Your task to perform on an android device: Add macbook to the cart on newegg.com Image 0: 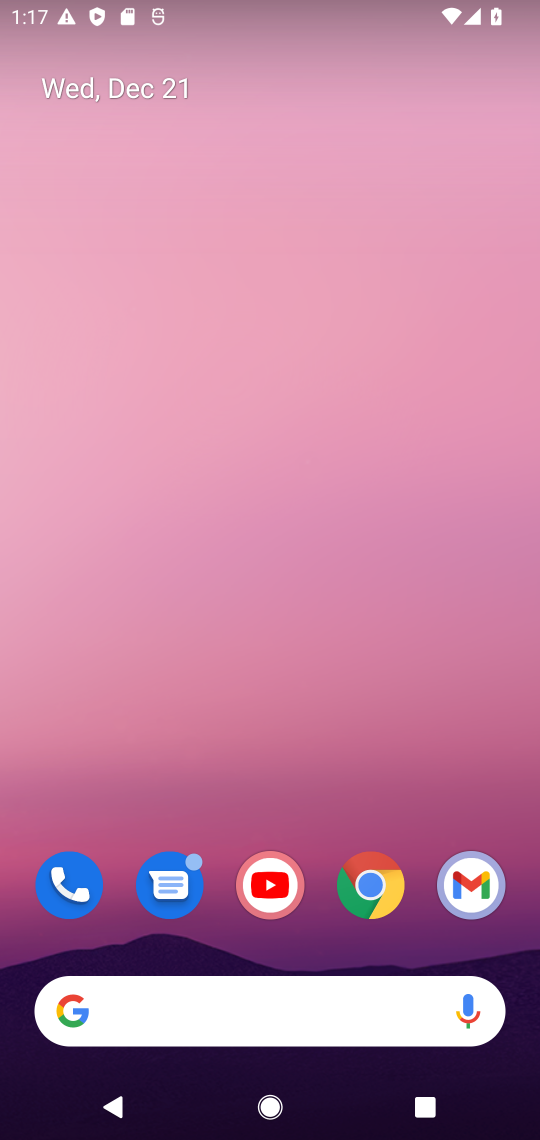
Step 0: drag from (283, 1005) to (286, 157)
Your task to perform on an android device: Add macbook to the cart on newegg.com Image 1: 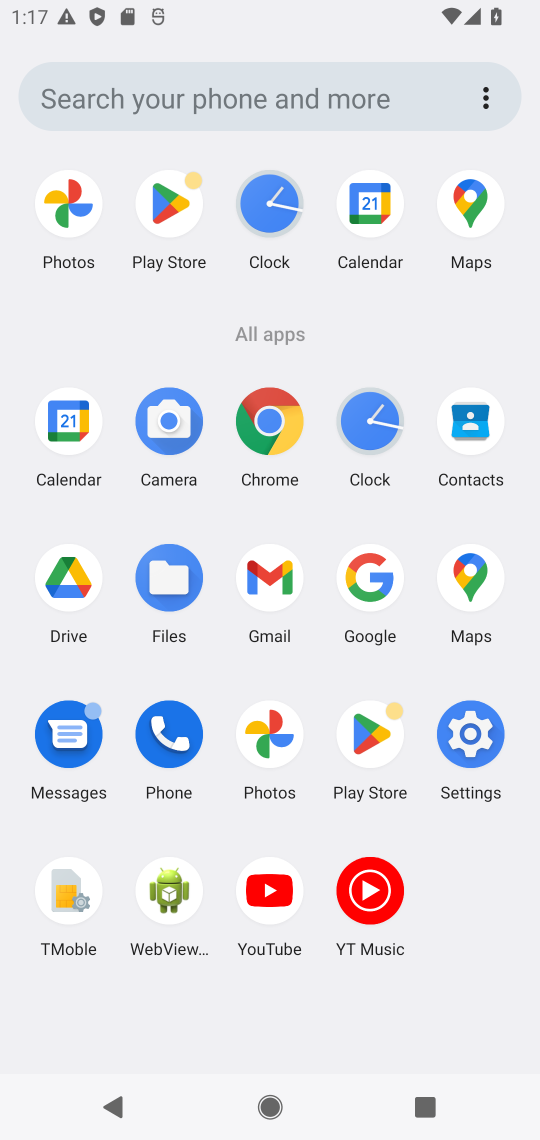
Step 1: click (356, 570)
Your task to perform on an android device: Add macbook to the cart on newegg.com Image 2: 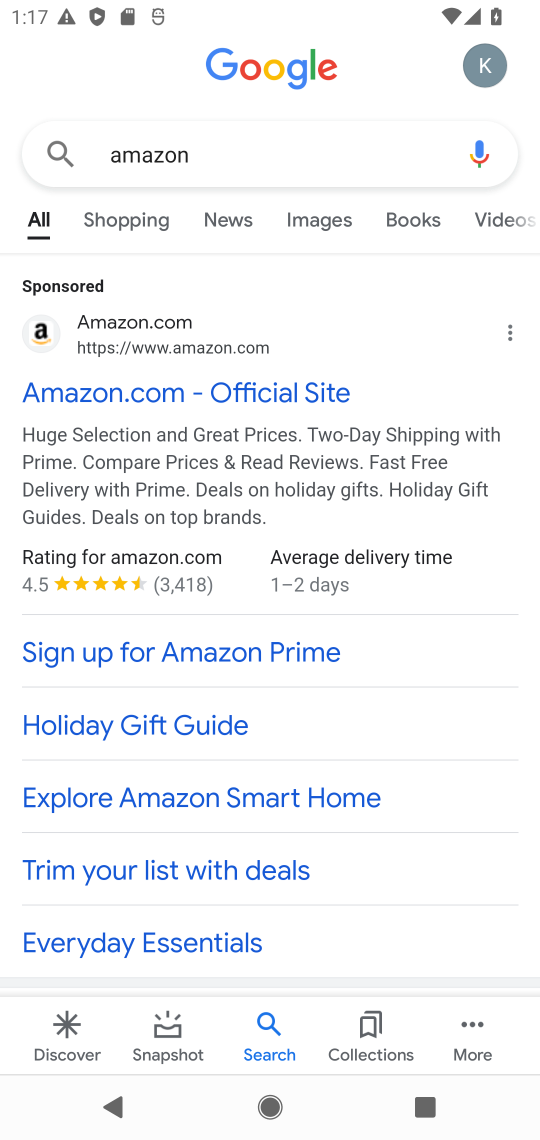
Step 2: click (181, 165)
Your task to perform on an android device: Add macbook to the cart on newegg.com Image 3: 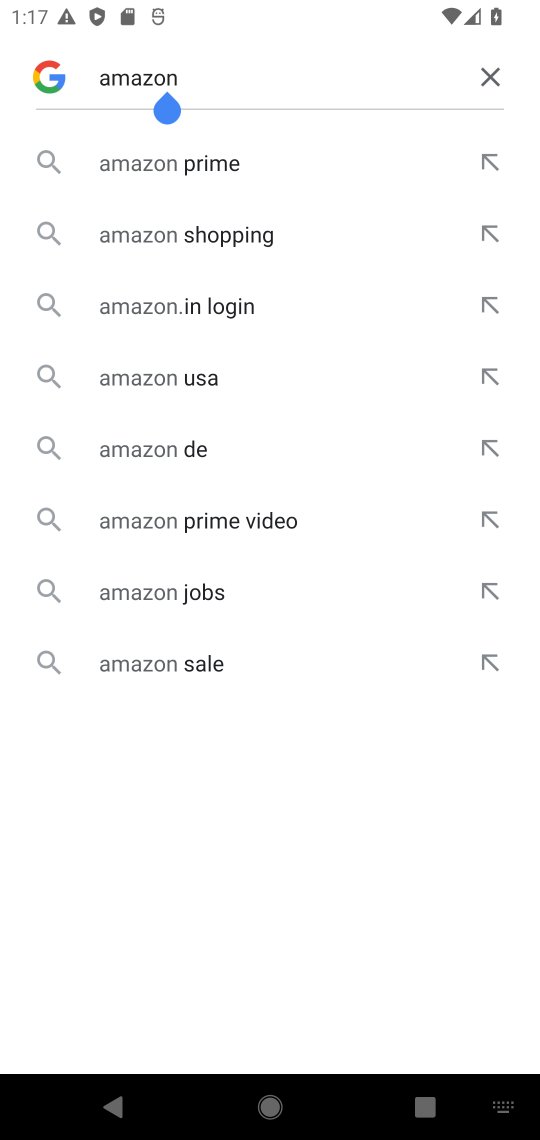
Step 3: click (492, 75)
Your task to perform on an android device: Add macbook to the cart on newegg.com Image 4: 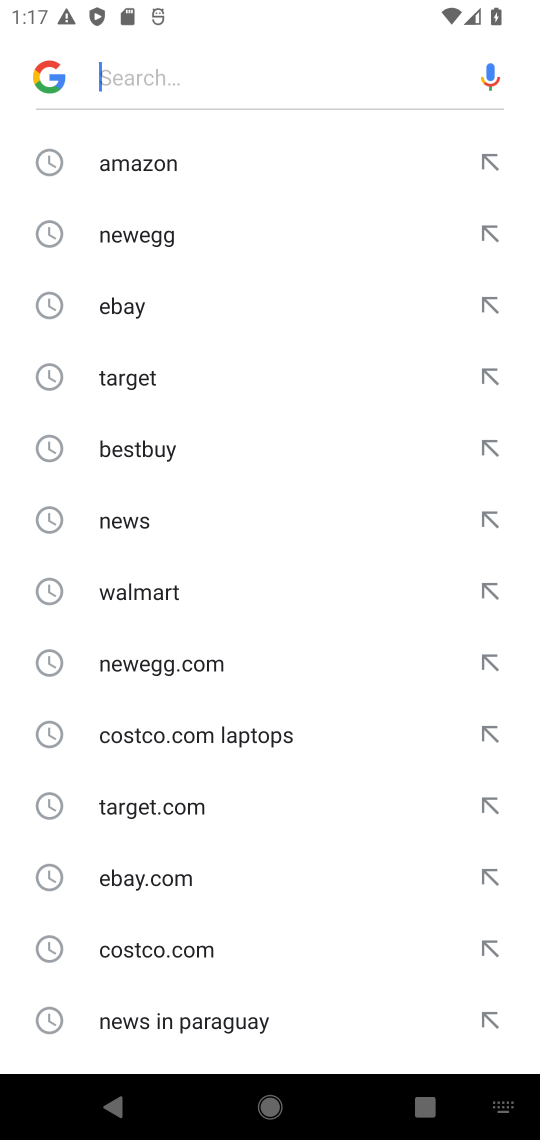
Step 4: click (145, 232)
Your task to perform on an android device: Add macbook to the cart on newegg.com Image 5: 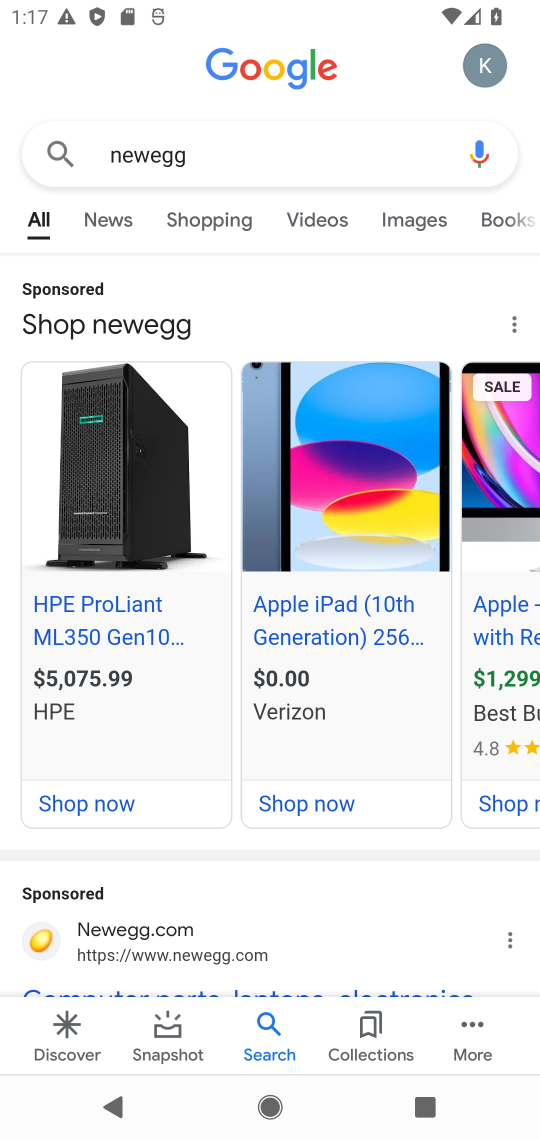
Step 5: drag from (229, 904) to (219, 265)
Your task to perform on an android device: Add macbook to the cart on newegg.com Image 6: 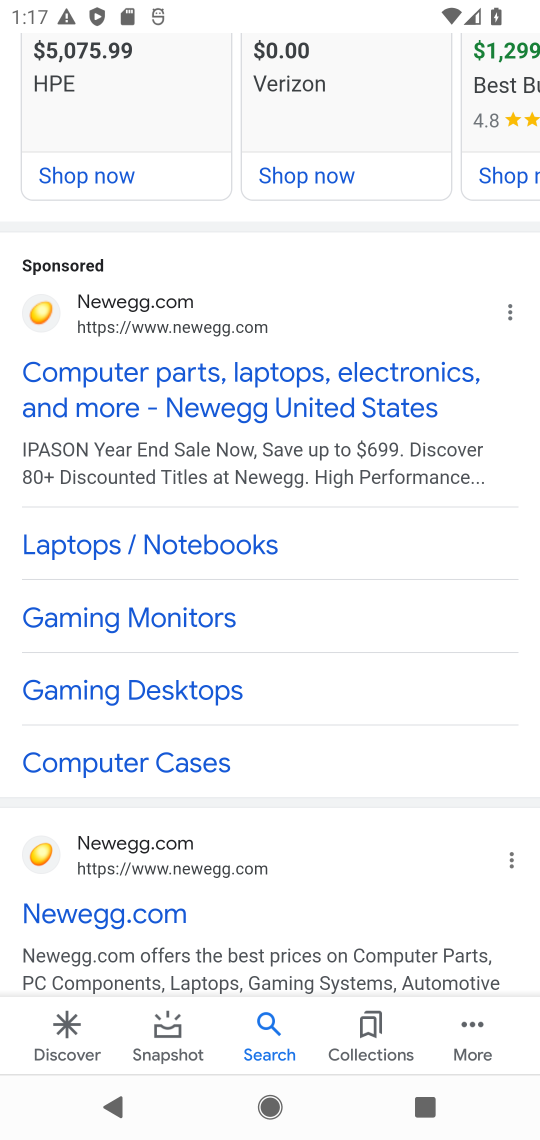
Step 6: drag from (237, 906) to (219, 367)
Your task to perform on an android device: Add macbook to the cart on newegg.com Image 7: 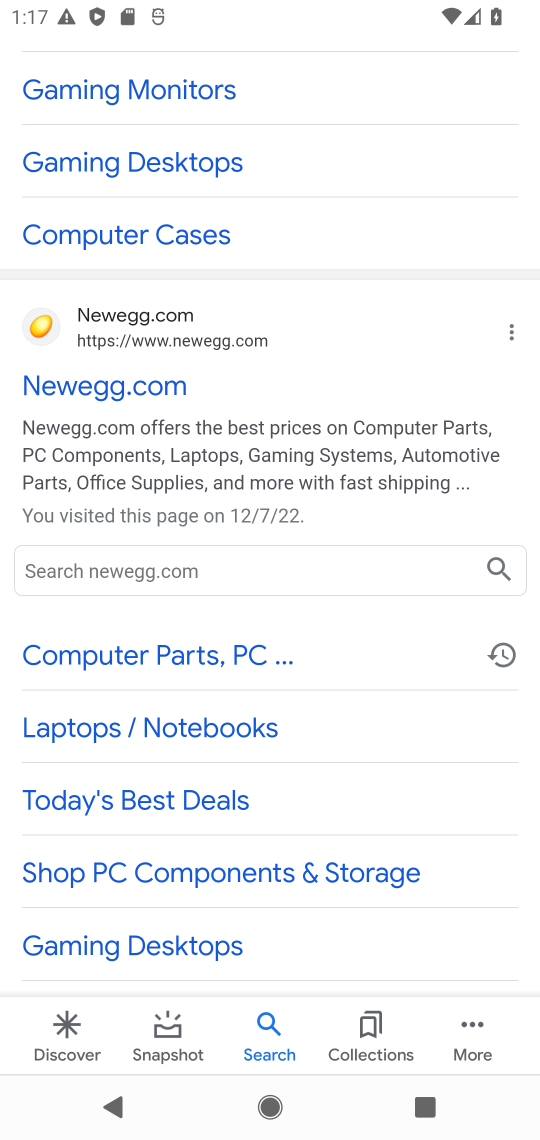
Step 7: click (64, 389)
Your task to perform on an android device: Add macbook to the cart on newegg.com Image 8: 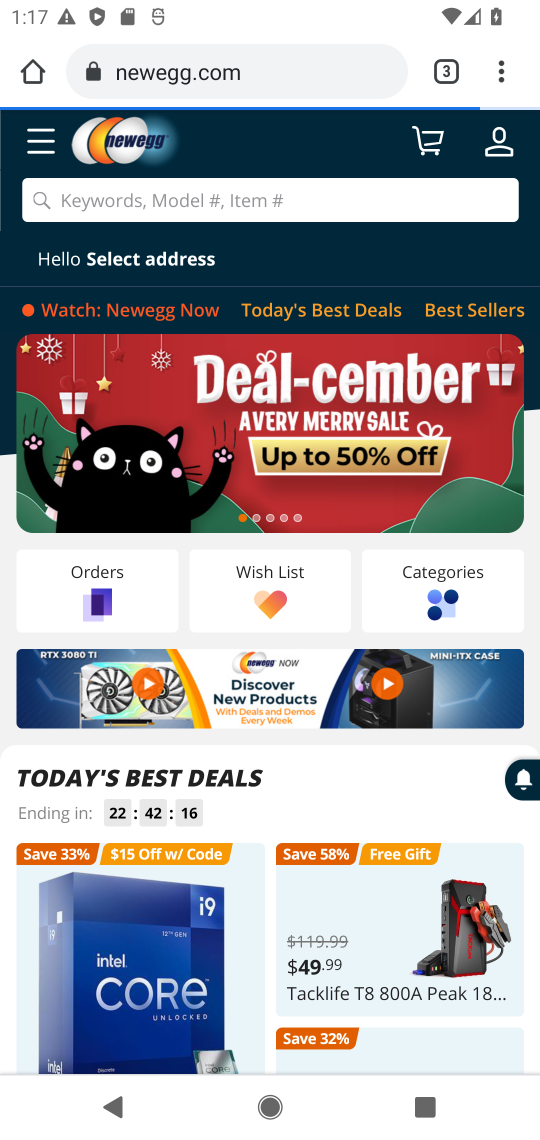
Step 8: click (215, 200)
Your task to perform on an android device: Add macbook to the cart on newegg.com Image 9: 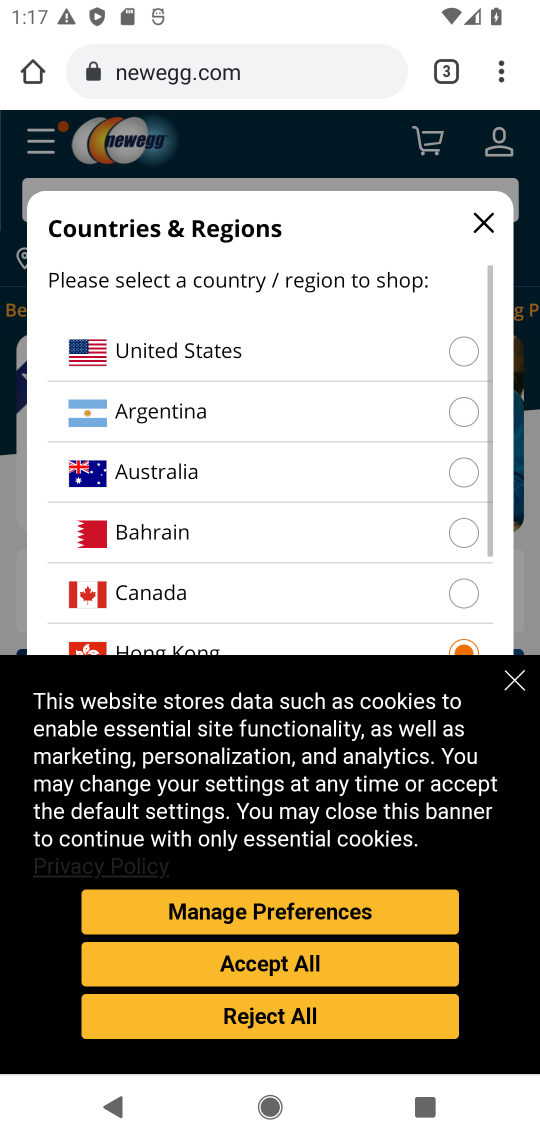
Step 9: click (482, 227)
Your task to perform on an android device: Add macbook to the cart on newegg.com Image 10: 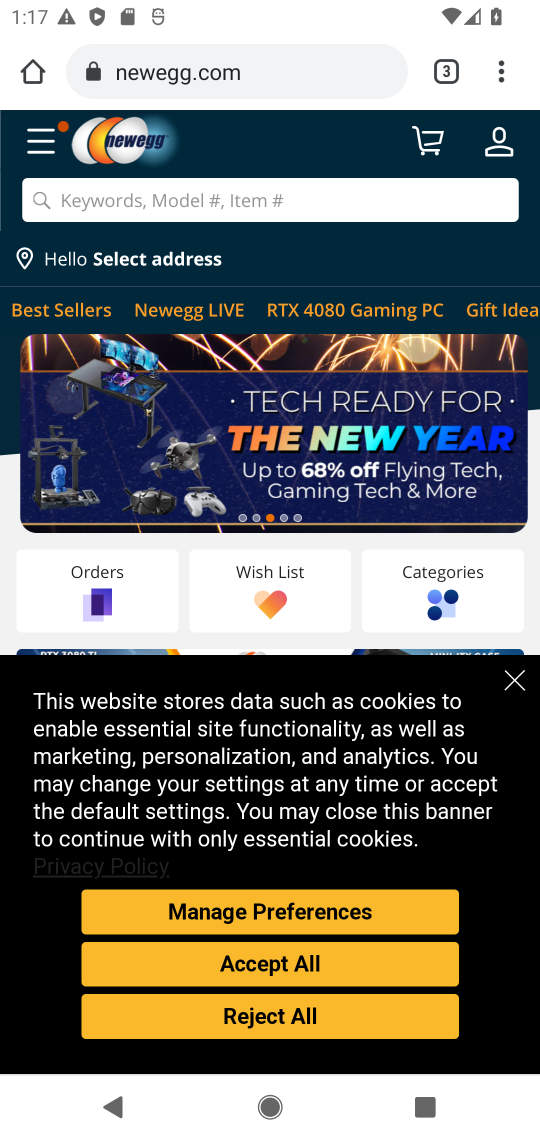
Step 10: click (103, 197)
Your task to perform on an android device: Add macbook to the cart on newegg.com Image 11: 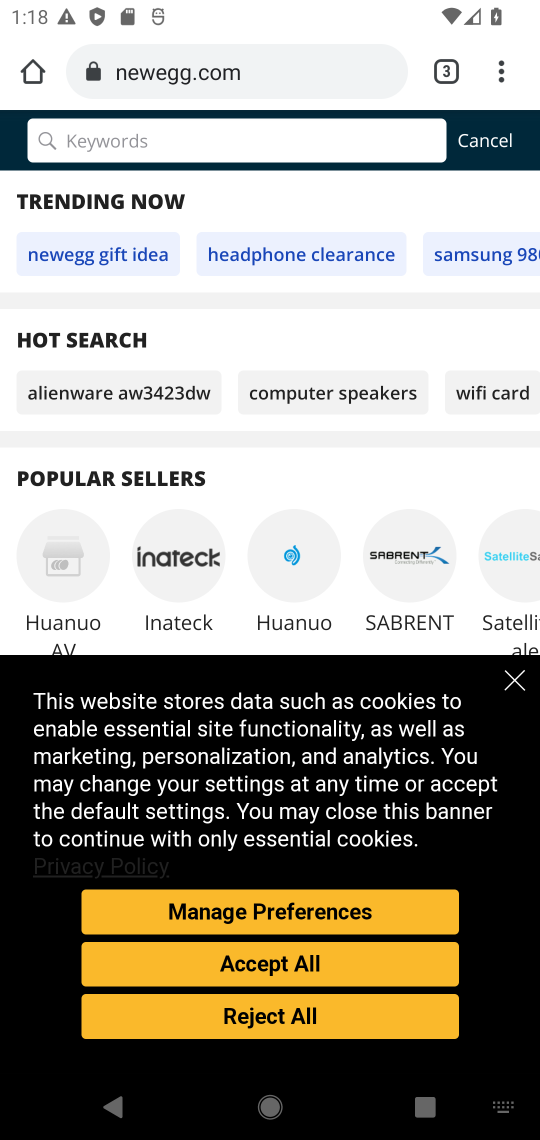
Step 11: type "macbook "
Your task to perform on an android device: Add macbook to the cart on newegg.com Image 12: 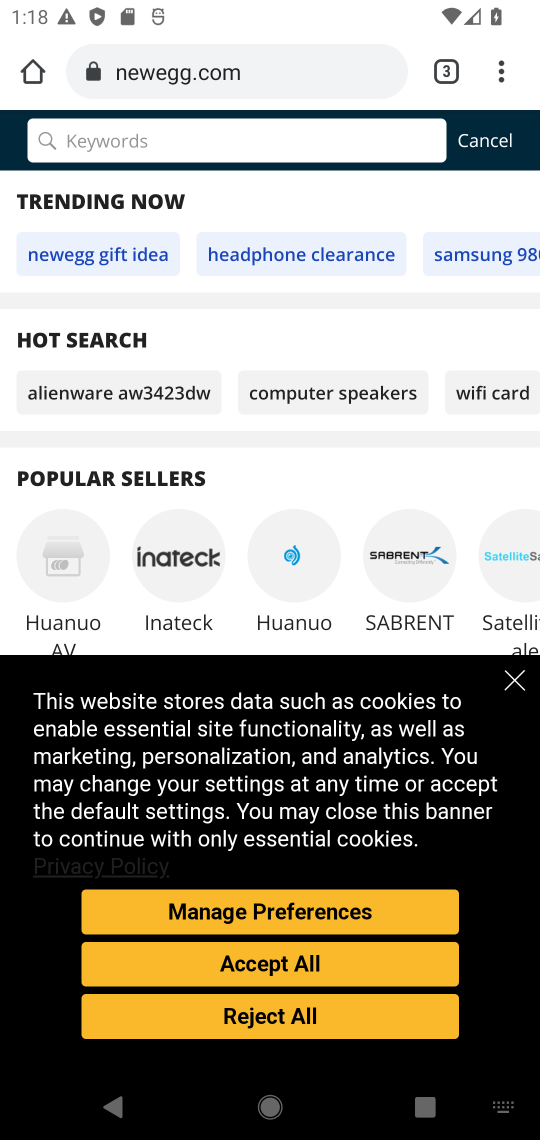
Step 12: click (35, 134)
Your task to perform on an android device: Add macbook to the cart on newegg.com Image 13: 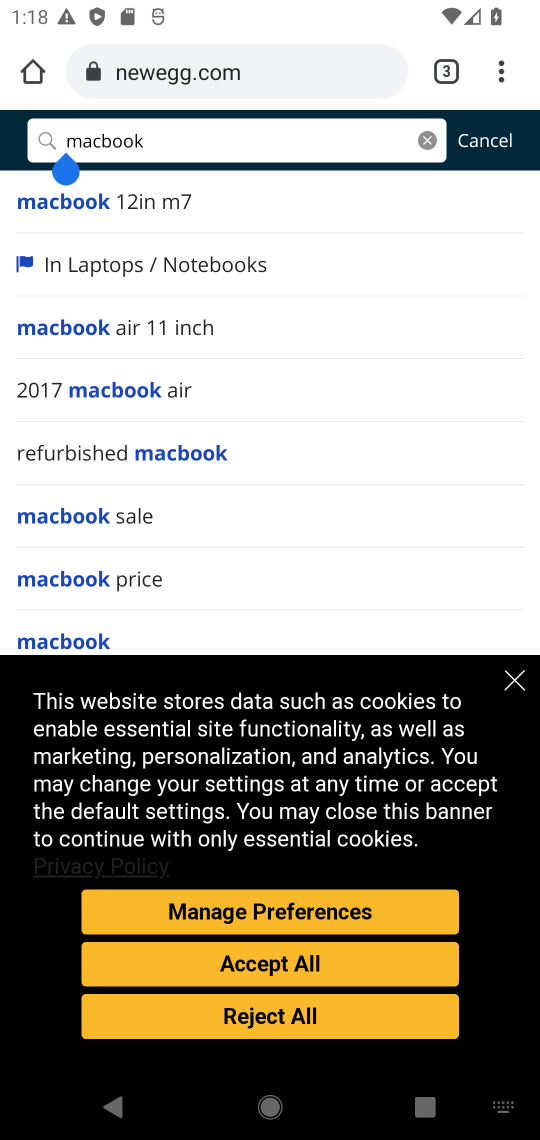
Step 13: click (58, 203)
Your task to perform on an android device: Add macbook to the cart on newegg.com Image 14: 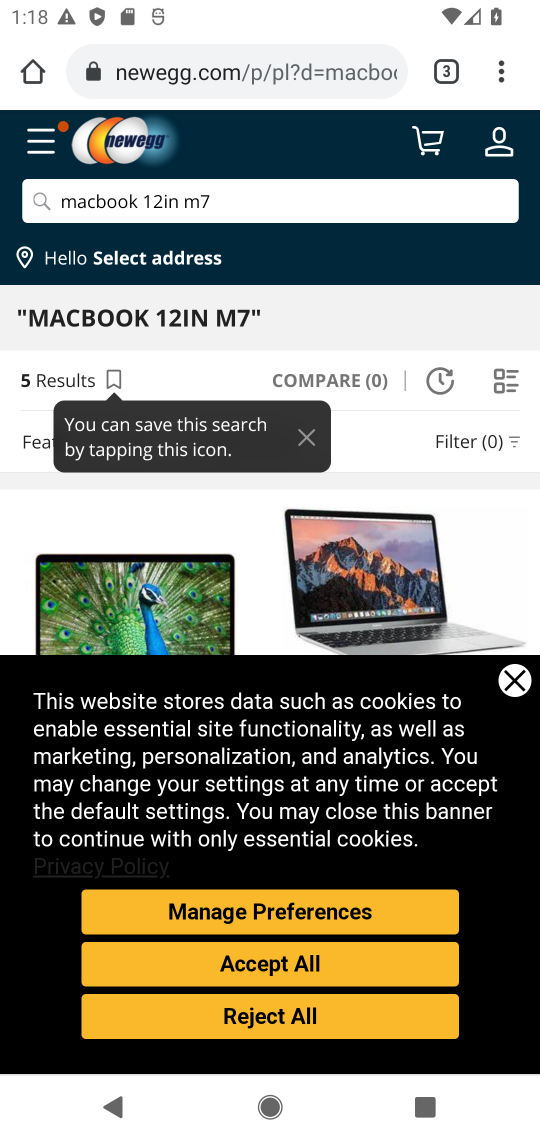
Step 14: click (520, 676)
Your task to perform on an android device: Add macbook to the cart on newegg.com Image 15: 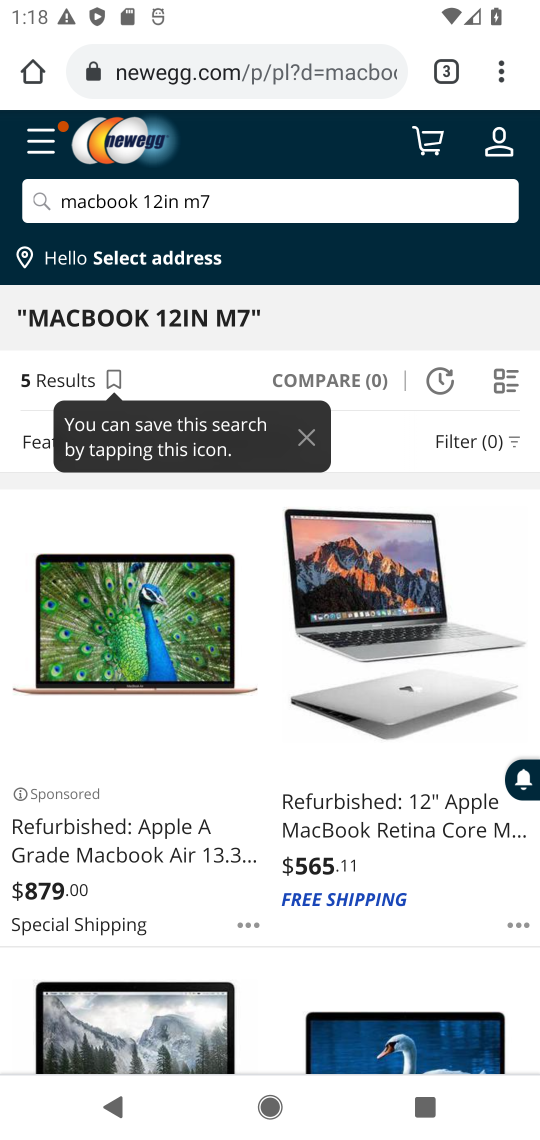
Step 15: drag from (185, 932) to (173, 453)
Your task to perform on an android device: Add macbook to the cart on newegg.com Image 16: 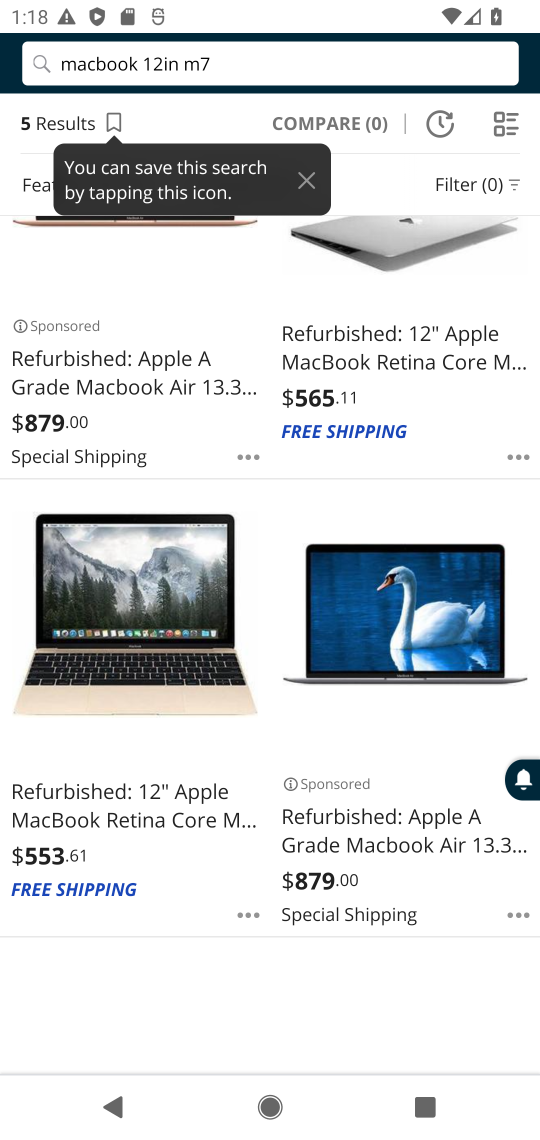
Step 16: drag from (126, 322) to (156, 677)
Your task to perform on an android device: Add macbook to the cart on newegg.com Image 17: 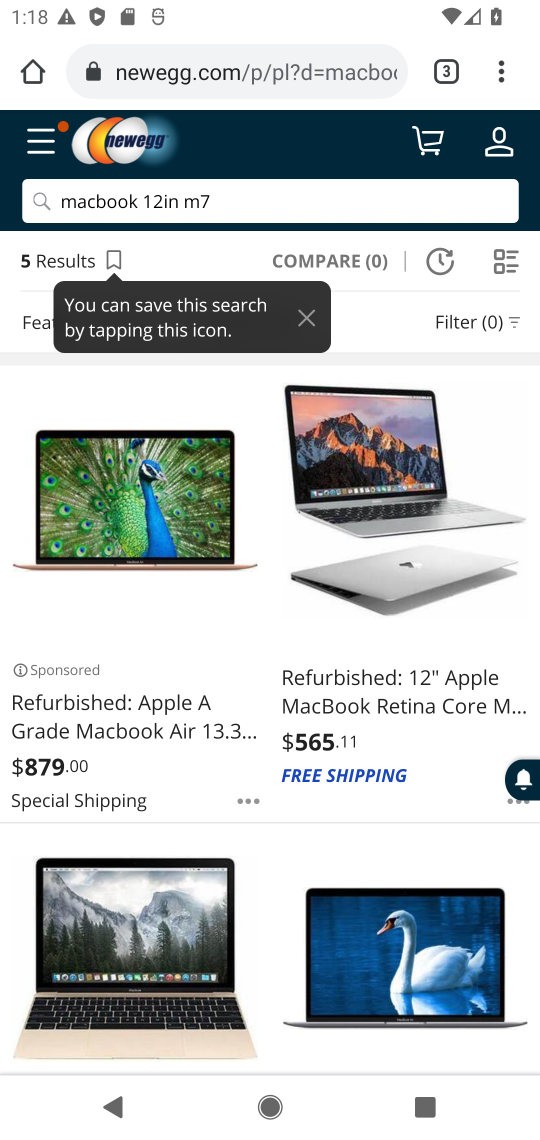
Step 17: click (133, 728)
Your task to perform on an android device: Add macbook to the cart on newegg.com Image 18: 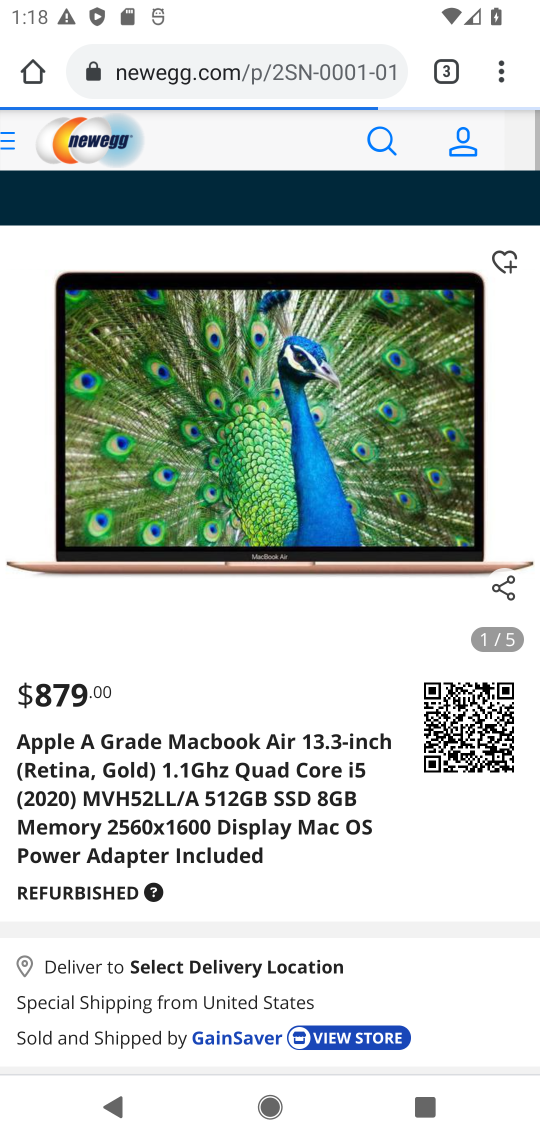
Step 18: drag from (349, 969) to (297, 580)
Your task to perform on an android device: Add macbook to the cart on newegg.com Image 19: 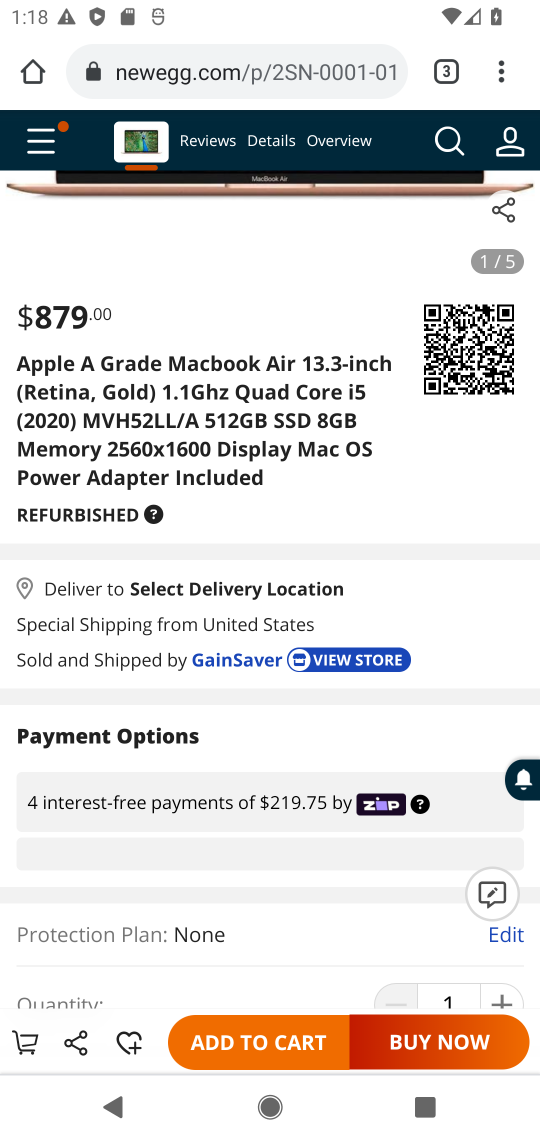
Step 19: click (257, 1053)
Your task to perform on an android device: Add macbook to the cart on newegg.com Image 20: 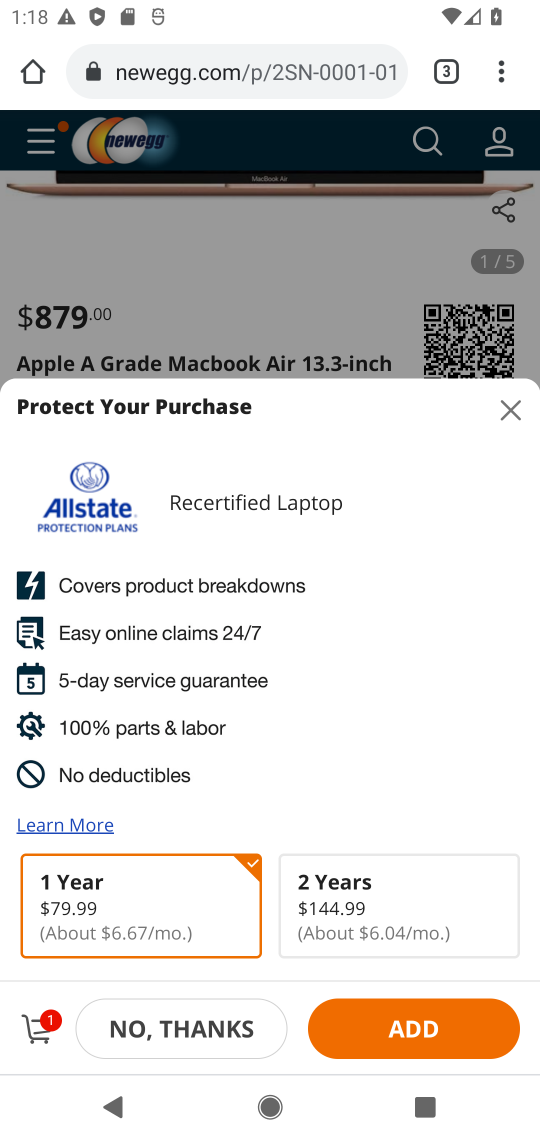
Step 20: task complete